Your task to perform on an android device: turn pop-ups on in chrome Image 0: 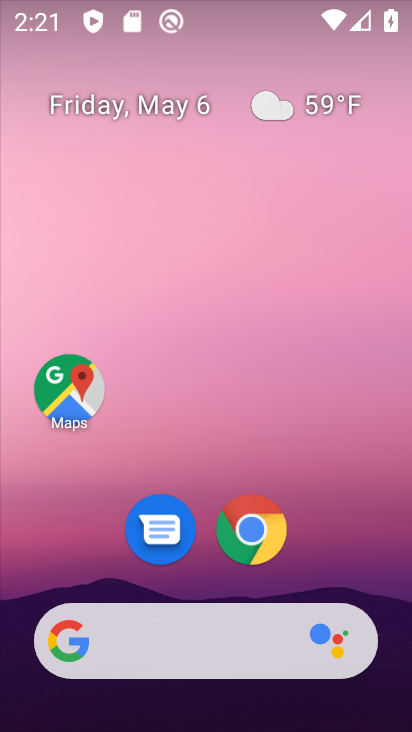
Step 0: click (257, 545)
Your task to perform on an android device: turn pop-ups on in chrome Image 1: 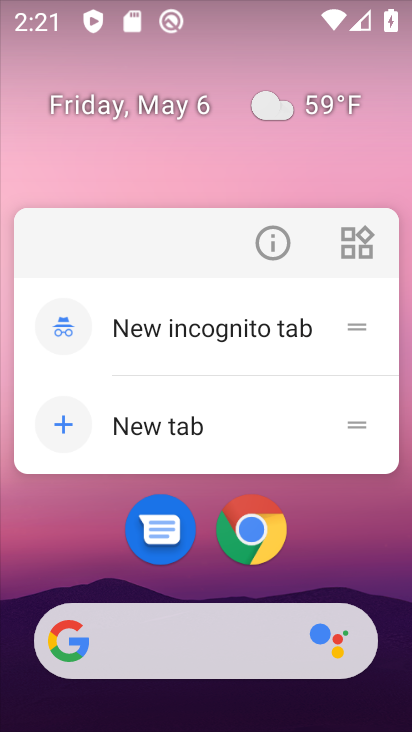
Step 1: click (263, 524)
Your task to perform on an android device: turn pop-ups on in chrome Image 2: 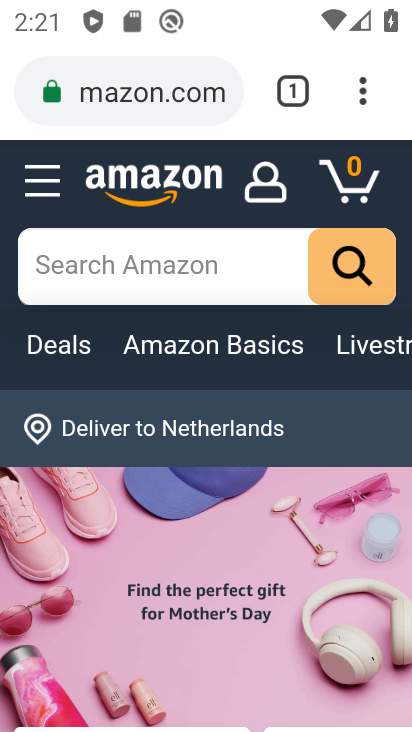
Step 2: drag from (360, 101) to (129, 568)
Your task to perform on an android device: turn pop-ups on in chrome Image 3: 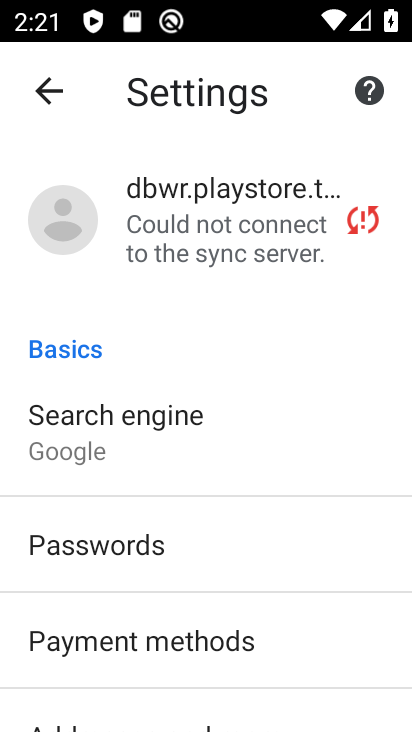
Step 3: drag from (211, 631) to (249, 285)
Your task to perform on an android device: turn pop-ups on in chrome Image 4: 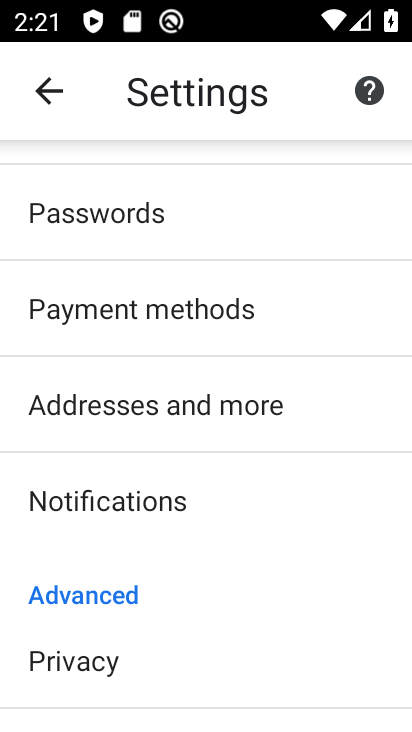
Step 4: drag from (212, 633) to (272, 229)
Your task to perform on an android device: turn pop-ups on in chrome Image 5: 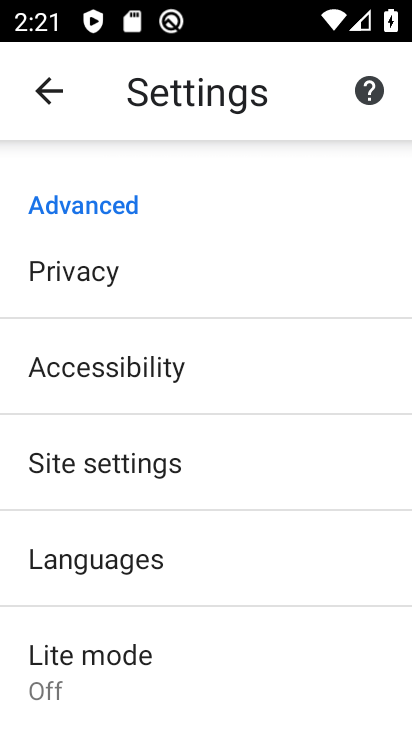
Step 5: click (197, 474)
Your task to perform on an android device: turn pop-ups on in chrome Image 6: 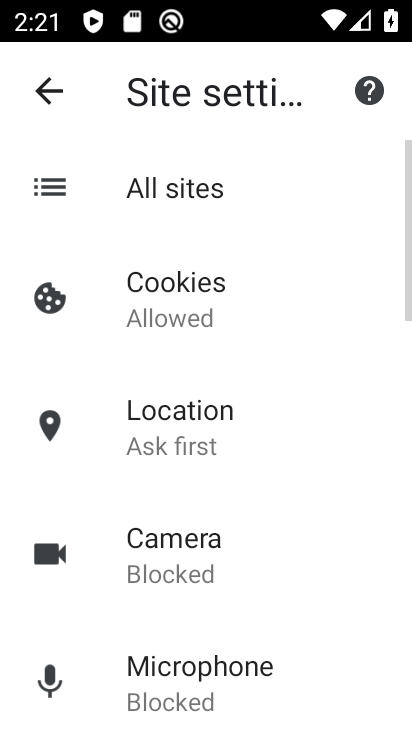
Step 6: drag from (237, 605) to (259, 260)
Your task to perform on an android device: turn pop-ups on in chrome Image 7: 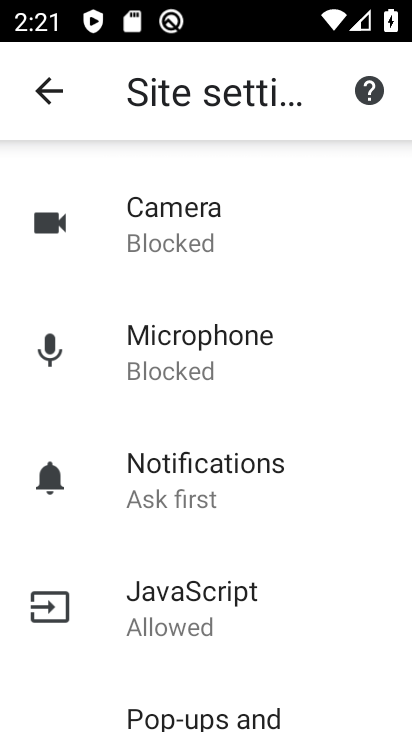
Step 7: drag from (227, 545) to (232, 244)
Your task to perform on an android device: turn pop-ups on in chrome Image 8: 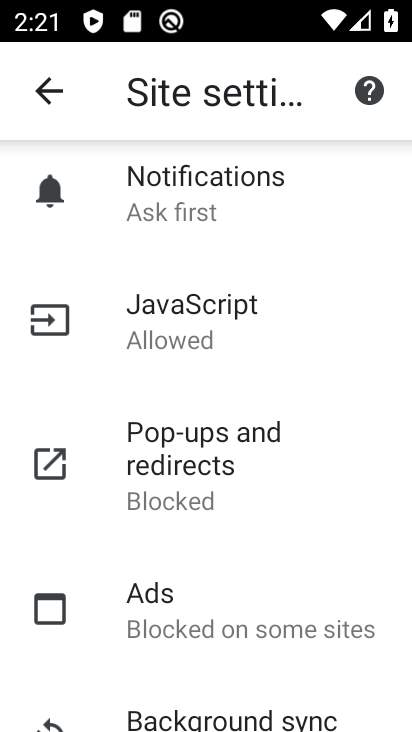
Step 8: click (216, 453)
Your task to perform on an android device: turn pop-ups on in chrome Image 9: 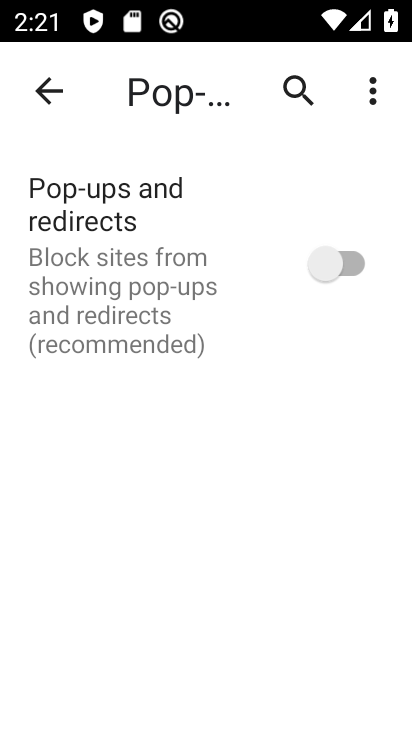
Step 9: click (361, 262)
Your task to perform on an android device: turn pop-ups on in chrome Image 10: 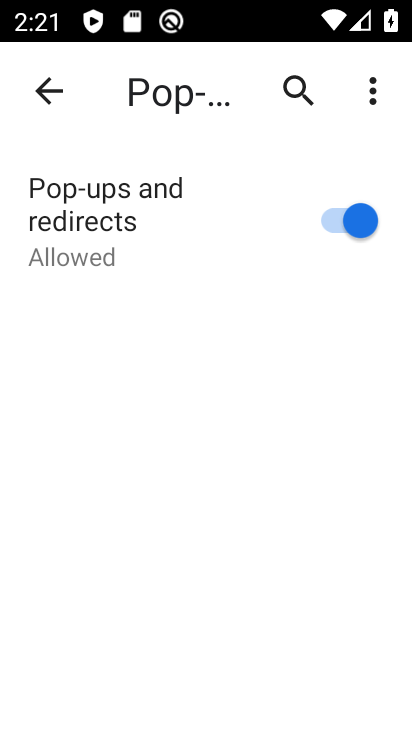
Step 10: task complete